Your task to perform on an android device: turn off notifications settings in the gmail app Image 0: 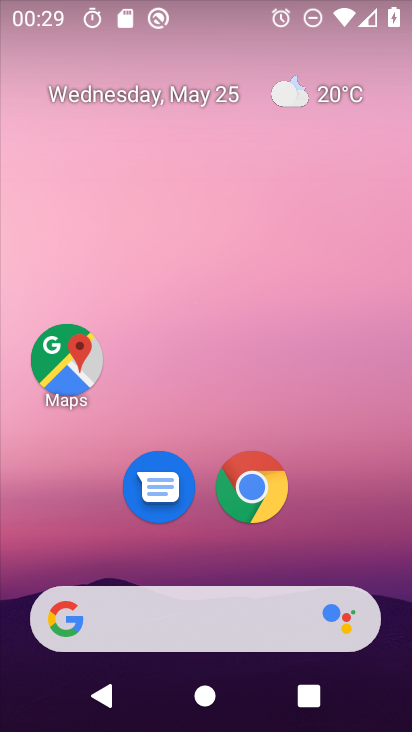
Step 0: drag from (354, 559) to (378, 528)
Your task to perform on an android device: turn off notifications settings in the gmail app Image 1: 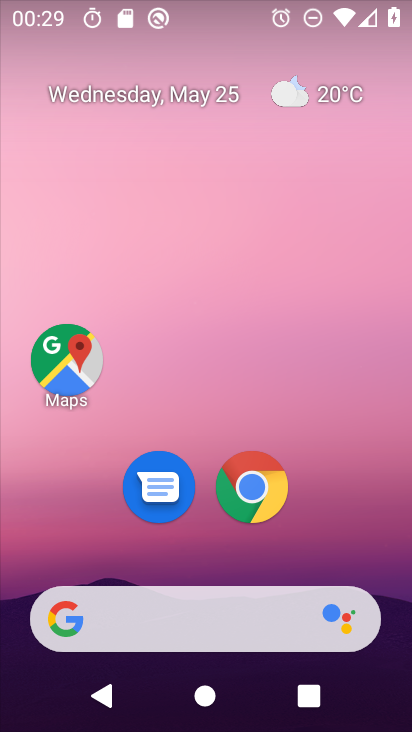
Step 1: click (170, 180)
Your task to perform on an android device: turn off notifications settings in the gmail app Image 2: 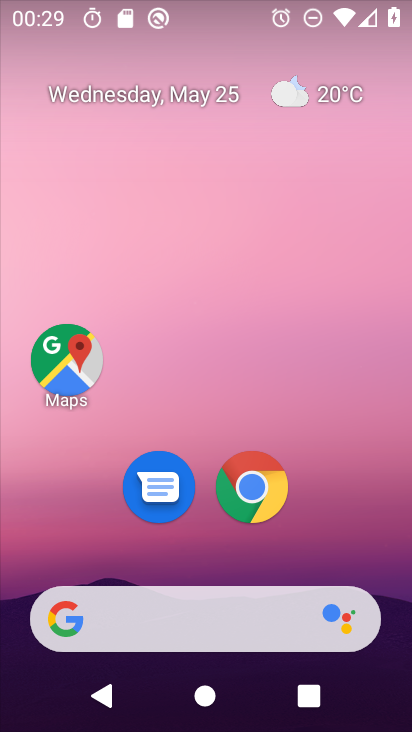
Step 2: drag from (328, 554) to (274, 10)
Your task to perform on an android device: turn off notifications settings in the gmail app Image 3: 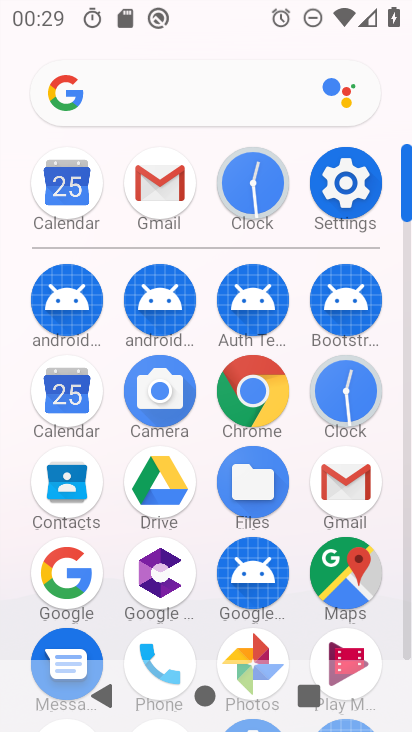
Step 3: click (157, 193)
Your task to perform on an android device: turn off notifications settings in the gmail app Image 4: 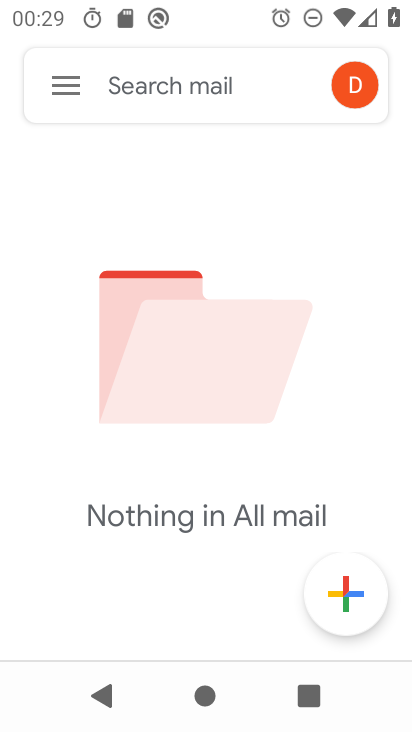
Step 4: click (58, 88)
Your task to perform on an android device: turn off notifications settings in the gmail app Image 5: 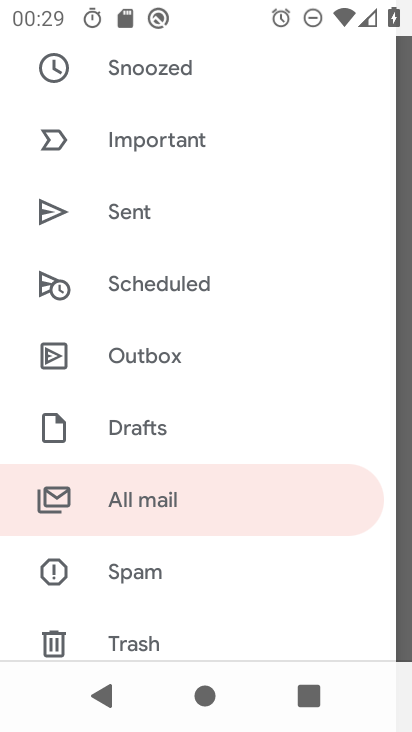
Step 5: drag from (212, 565) to (218, 111)
Your task to perform on an android device: turn off notifications settings in the gmail app Image 6: 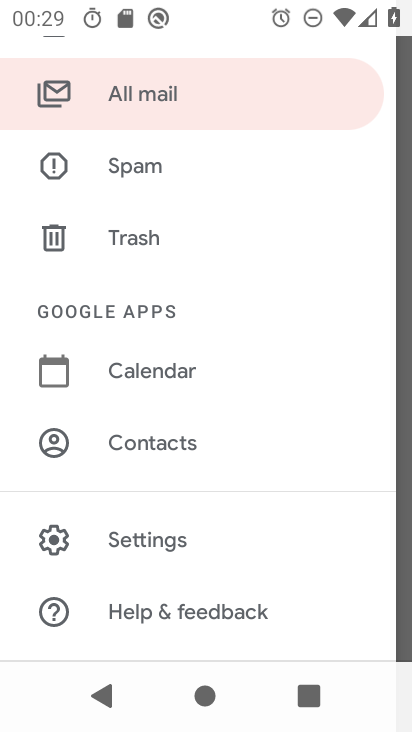
Step 6: click (133, 539)
Your task to perform on an android device: turn off notifications settings in the gmail app Image 7: 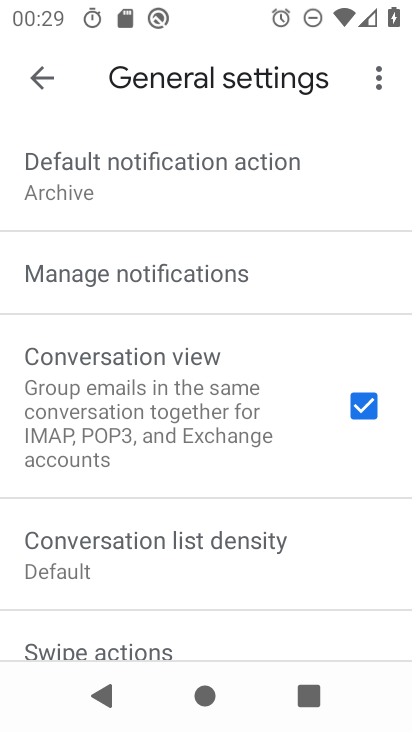
Step 7: click (119, 277)
Your task to perform on an android device: turn off notifications settings in the gmail app Image 8: 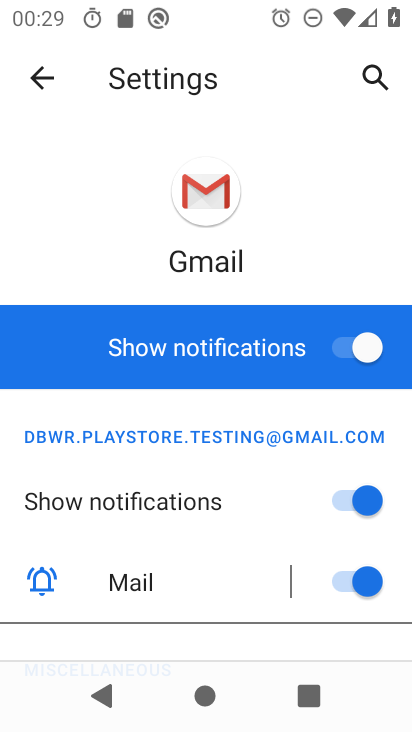
Step 8: click (374, 351)
Your task to perform on an android device: turn off notifications settings in the gmail app Image 9: 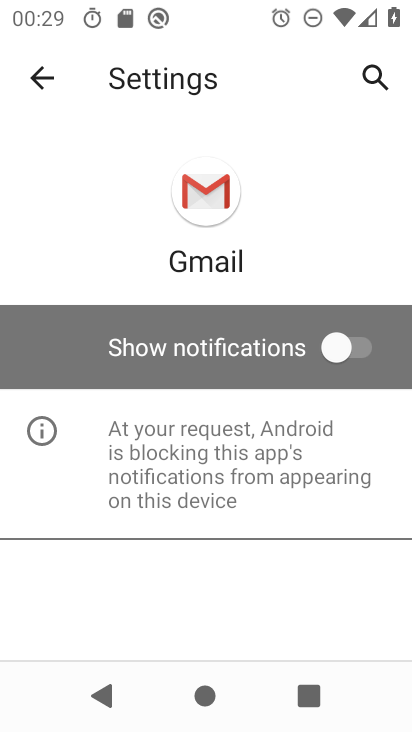
Step 9: task complete